Your task to perform on an android device: Open Amazon Image 0: 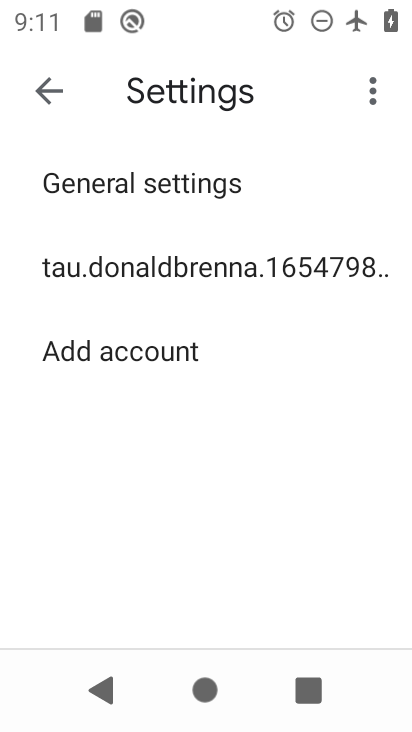
Step 0: press home button
Your task to perform on an android device: Open Amazon Image 1: 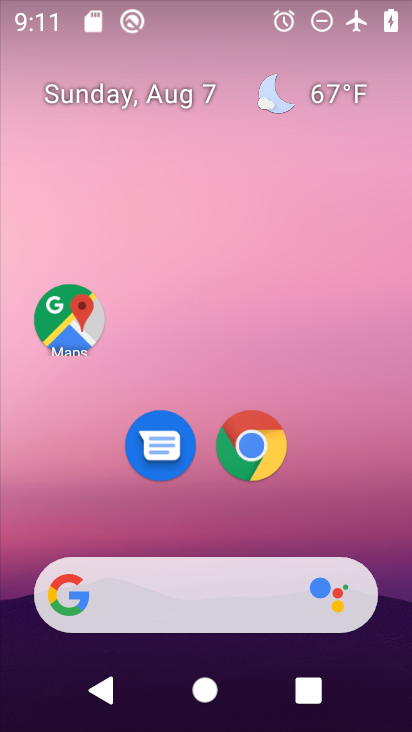
Step 1: click (248, 436)
Your task to perform on an android device: Open Amazon Image 2: 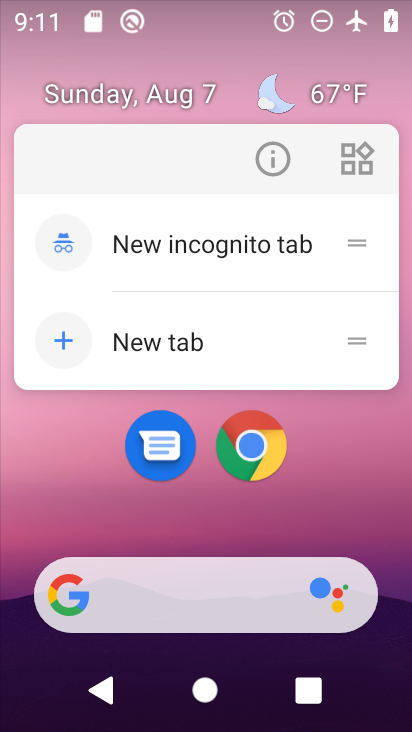
Step 2: click (250, 438)
Your task to perform on an android device: Open Amazon Image 3: 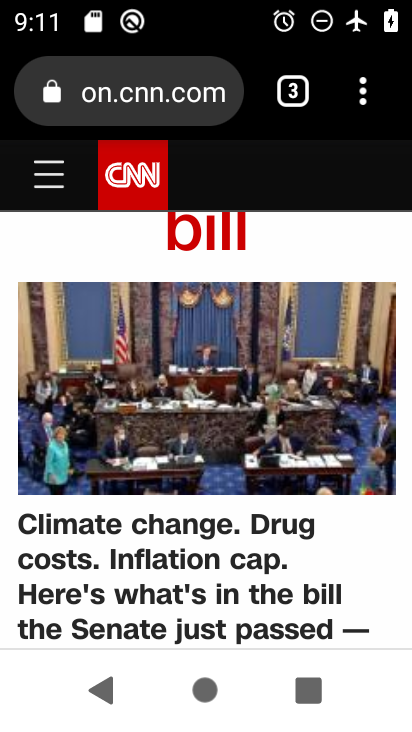
Step 3: click (290, 79)
Your task to perform on an android device: Open Amazon Image 4: 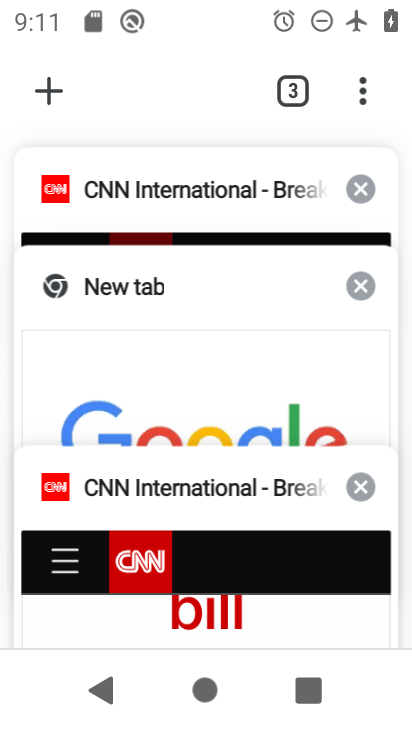
Step 4: click (363, 189)
Your task to perform on an android device: Open Amazon Image 5: 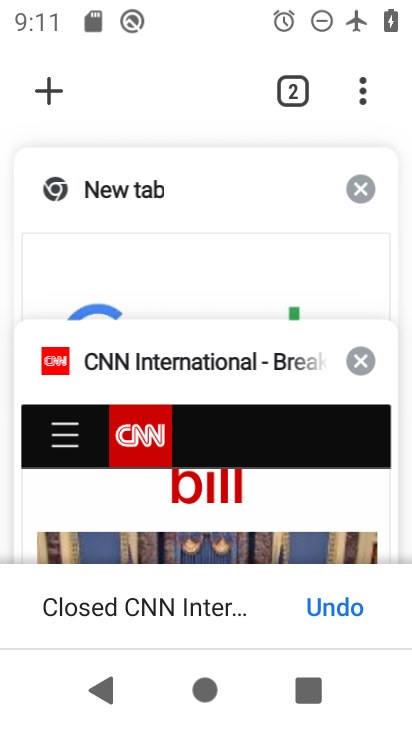
Step 5: click (359, 355)
Your task to perform on an android device: Open Amazon Image 6: 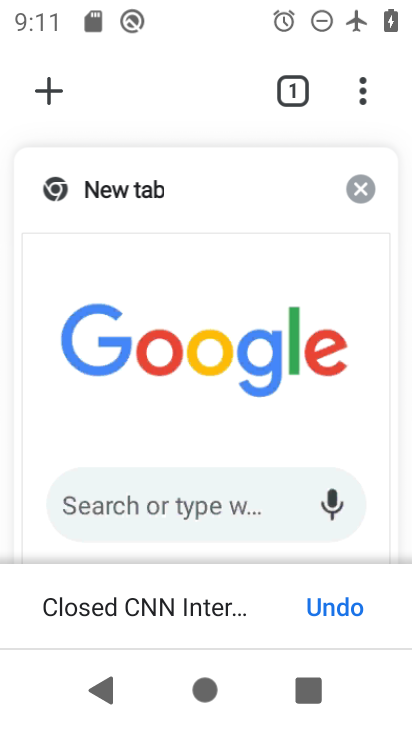
Step 6: click (171, 265)
Your task to perform on an android device: Open Amazon Image 7: 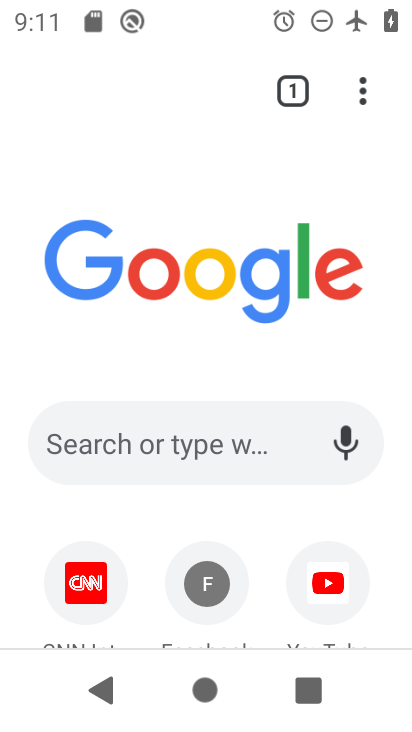
Step 7: drag from (203, 376) to (200, 69)
Your task to perform on an android device: Open Amazon Image 8: 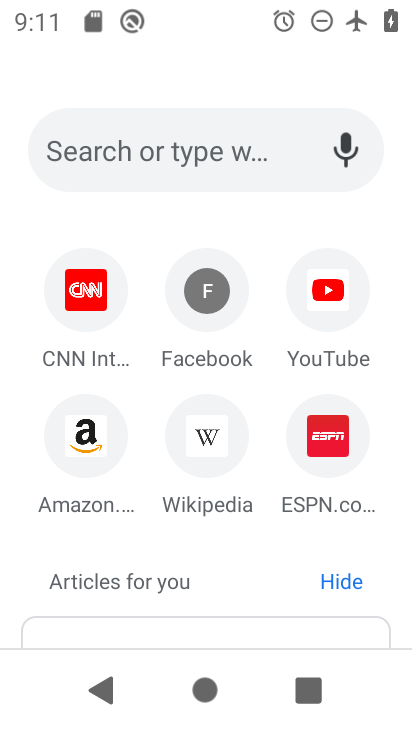
Step 8: click (83, 427)
Your task to perform on an android device: Open Amazon Image 9: 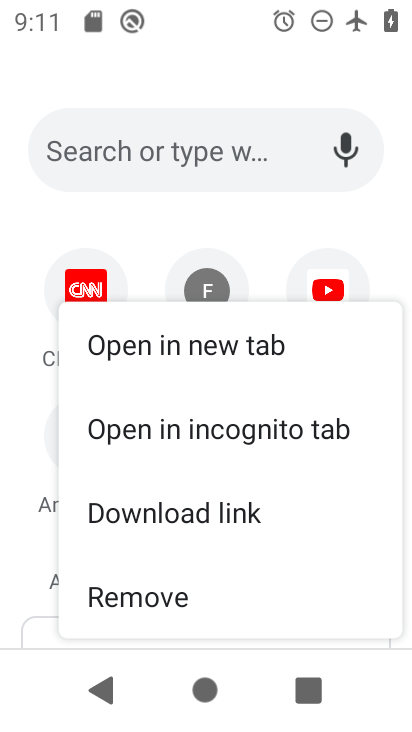
Step 9: click (14, 433)
Your task to perform on an android device: Open Amazon Image 10: 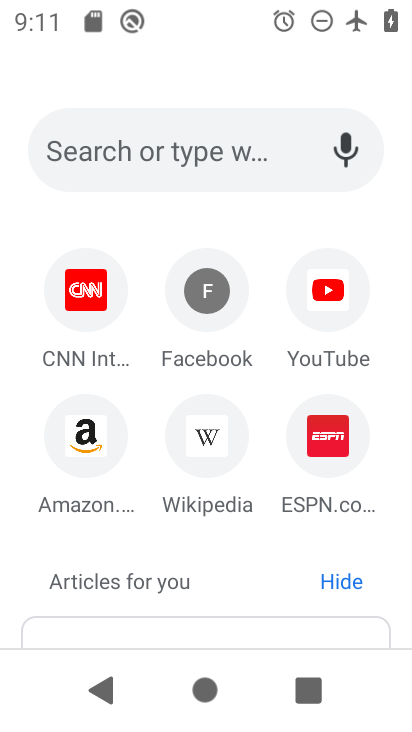
Step 10: click (81, 437)
Your task to perform on an android device: Open Amazon Image 11: 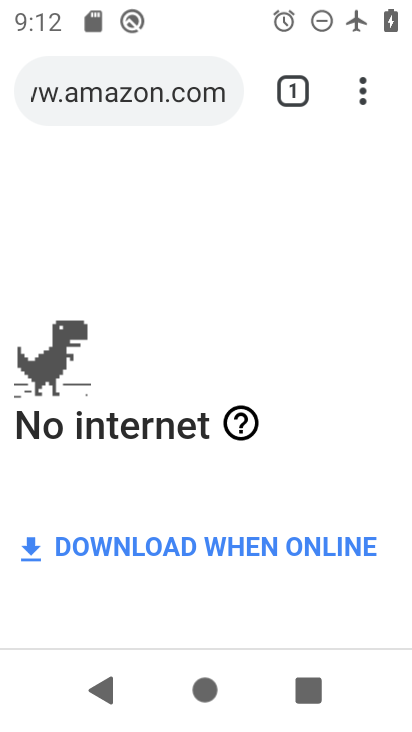
Step 11: task complete